Your task to perform on an android device: Open my contact list Image 0: 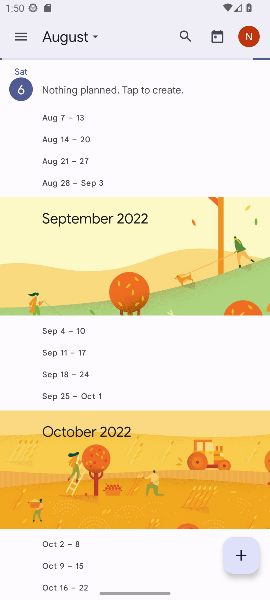
Step 0: press home button
Your task to perform on an android device: Open my contact list Image 1: 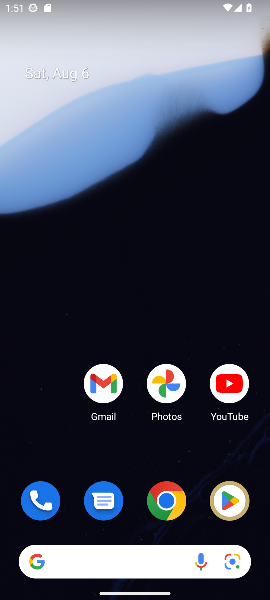
Step 1: drag from (141, 519) to (269, 80)
Your task to perform on an android device: Open my contact list Image 2: 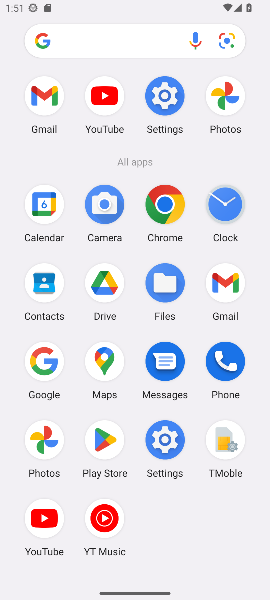
Step 2: click (42, 292)
Your task to perform on an android device: Open my contact list Image 3: 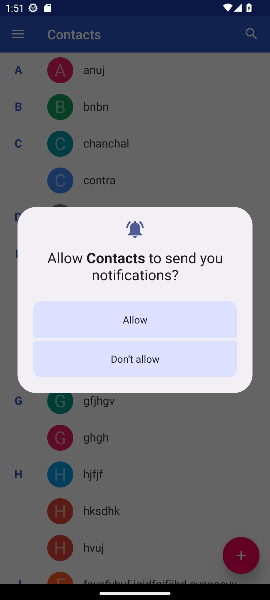
Step 3: click (153, 316)
Your task to perform on an android device: Open my contact list Image 4: 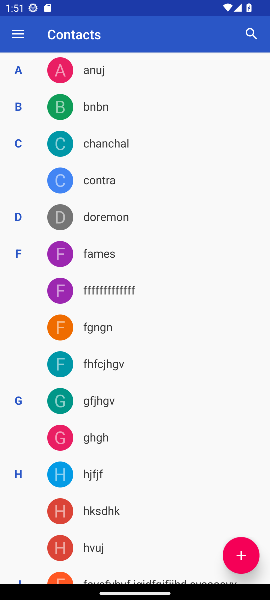
Step 4: task complete